Your task to perform on an android device: open app "TextNow: Call + Text Unlimited" (install if not already installed) Image 0: 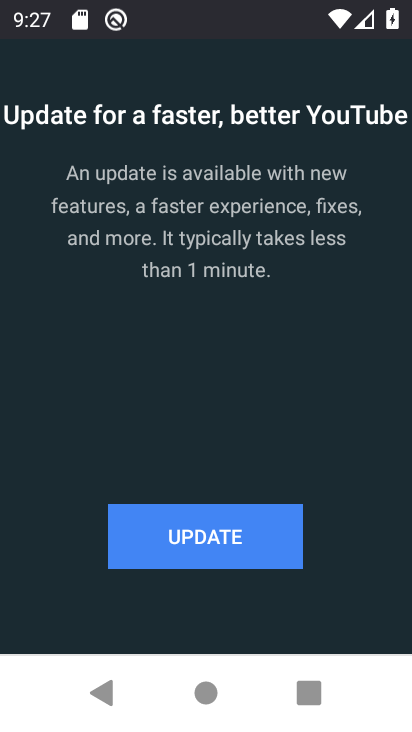
Step 0: press home button
Your task to perform on an android device: open app "TextNow: Call + Text Unlimited" (install if not already installed) Image 1: 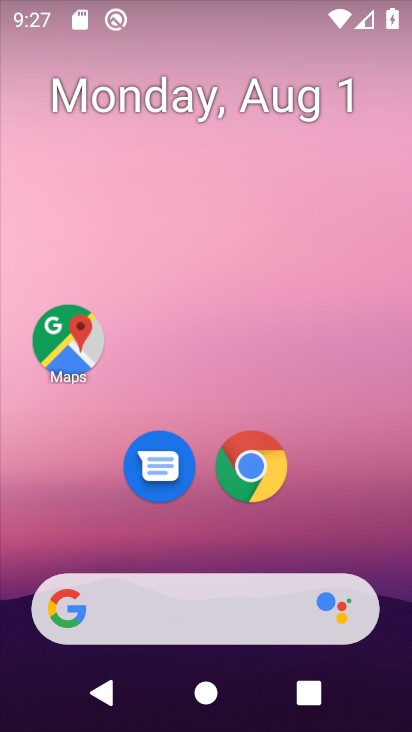
Step 1: drag from (230, 719) to (201, 236)
Your task to perform on an android device: open app "TextNow: Call + Text Unlimited" (install if not already installed) Image 2: 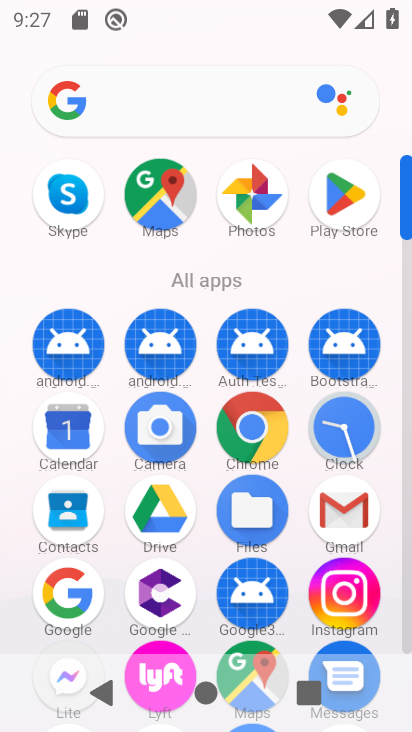
Step 2: click (353, 193)
Your task to perform on an android device: open app "TextNow: Call + Text Unlimited" (install if not already installed) Image 3: 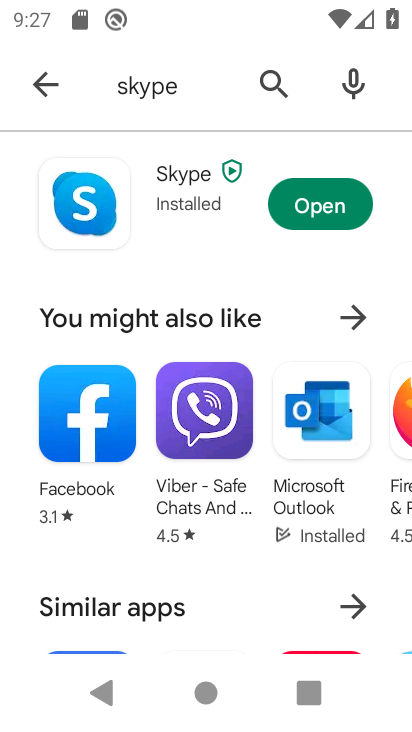
Step 3: click (260, 76)
Your task to perform on an android device: open app "TextNow: Call + Text Unlimited" (install if not already installed) Image 4: 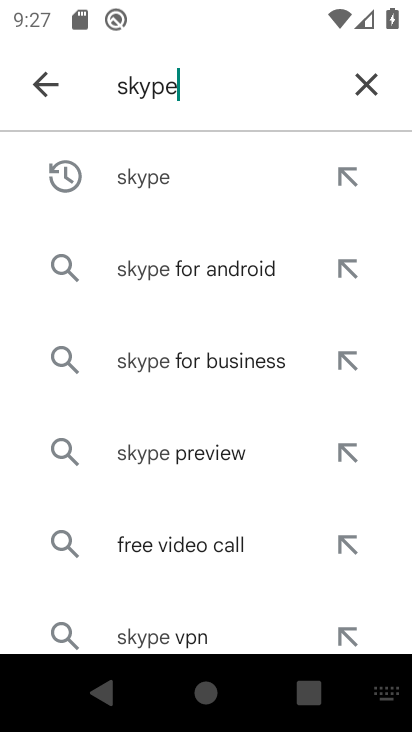
Step 4: click (364, 77)
Your task to perform on an android device: open app "TextNow: Call + Text Unlimited" (install if not already installed) Image 5: 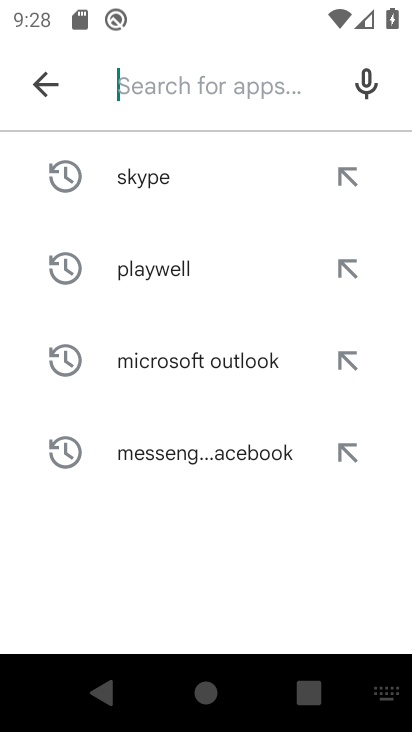
Step 5: type "TextNow: Call + Text Unlimited"
Your task to perform on an android device: open app "TextNow: Call + Text Unlimited" (install if not already installed) Image 6: 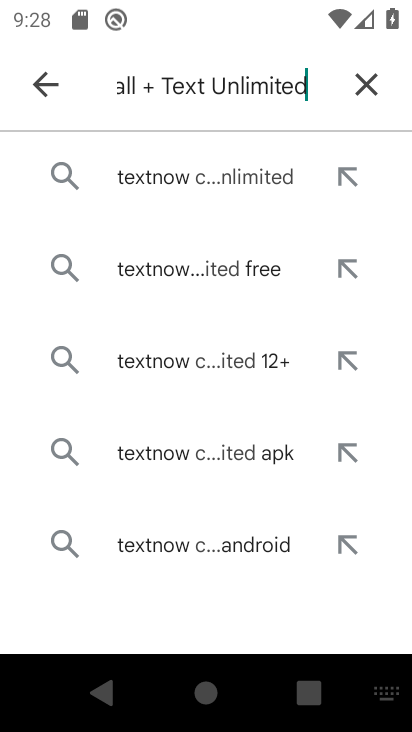
Step 6: click (223, 179)
Your task to perform on an android device: open app "TextNow: Call + Text Unlimited" (install if not already installed) Image 7: 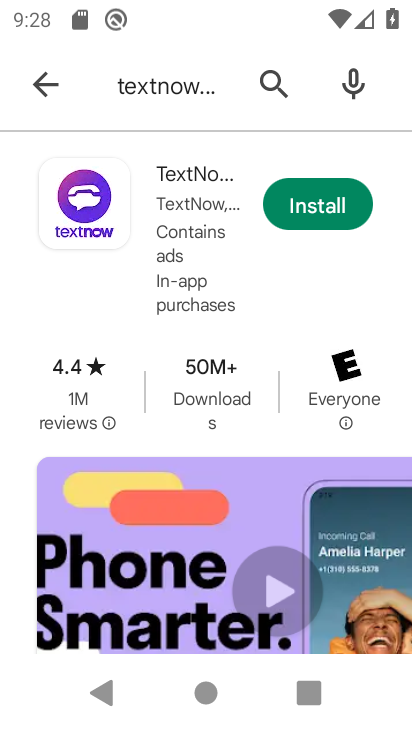
Step 7: click (319, 200)
Your task to perform on an android device: open app "TextNow: Call + Text Unlimited" (install if not already installed) Image 8: 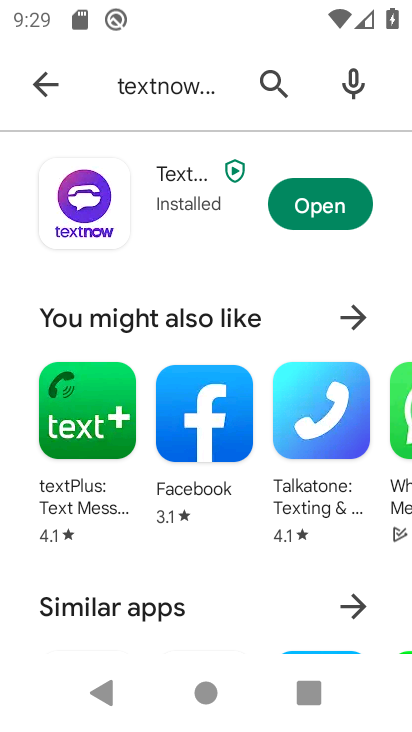
Step 8: click (328, 197)
Your task to perform on an android device: open app "TextNow: Call + Text Unlimited" (install if not already installed) Image 9: 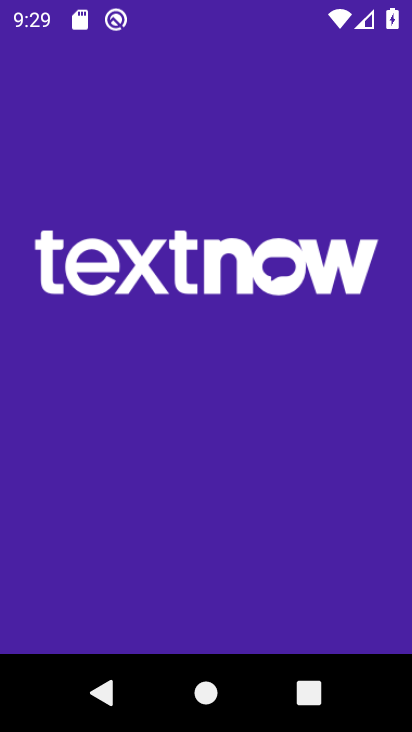
Step 9: task complete